Your task to perform on an android device: Is it going to rain tomorrow? Image 0: 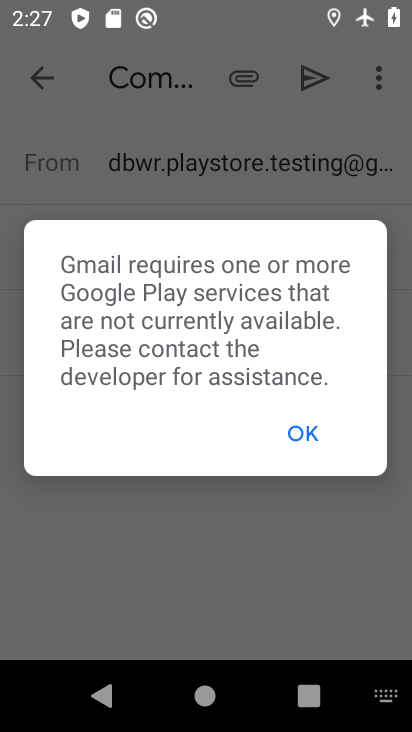
Step 0: click (316, 428)
Your task to perform on an android device: Is it going to rain tomorrow? Image 1: 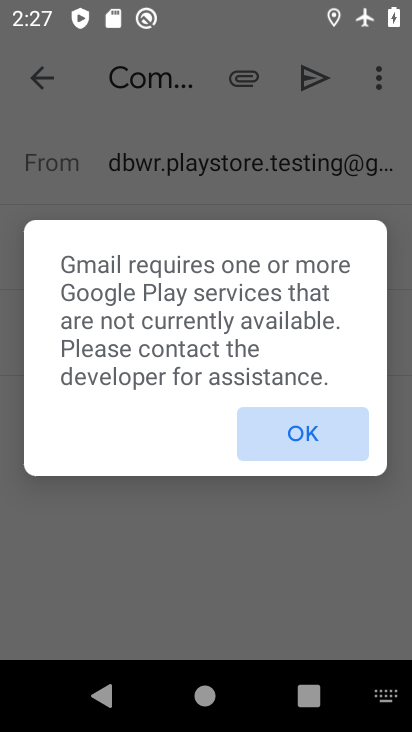
Step 1: click (316, 428)
Your task to perform on an android device: Is it going to rain tomorrow? Image 2: 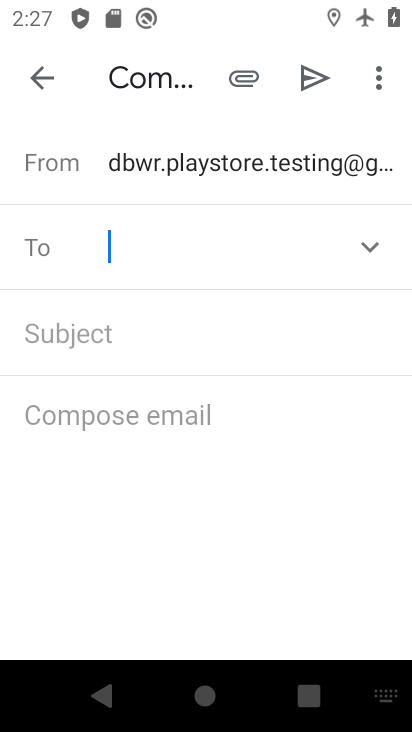
Step 2: click (316, 428)
Your task to perform on an android device: Is it going to rain tomorrow? Image 3: 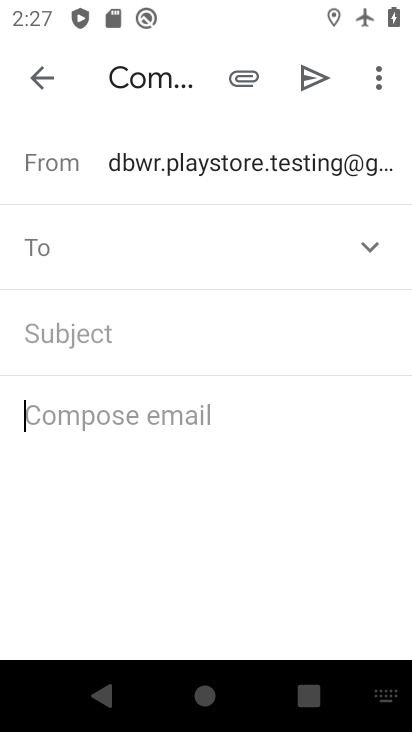
Step 3: click (47, 70)
Your task to perform on an android device: Is it going to rain tomorrow? Image 4: 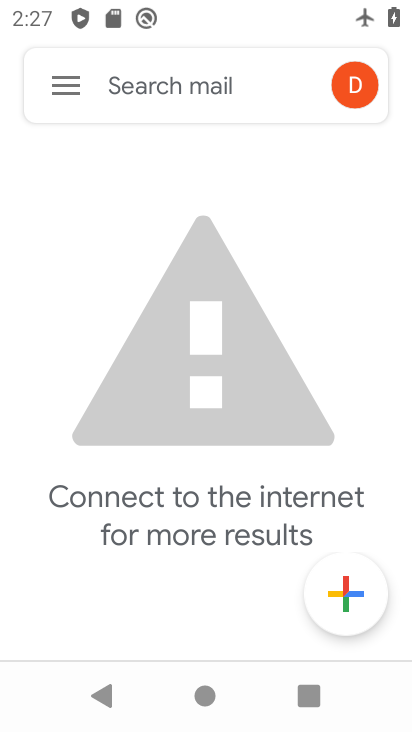
Step 4: drag from (123, 387) to (68, 15)
Your task to perform on an android device: Is it going to rain tomorrow? Image 5: 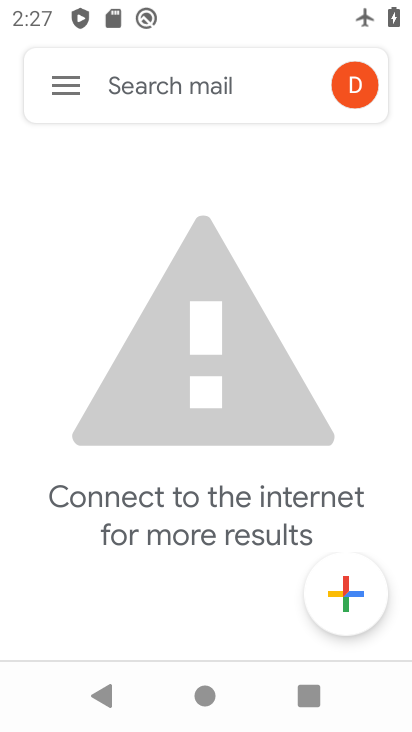
Step 5: drag from (162, 450) to (27, 10)
Your task to perform on an android device: Is it going to rain tomorrow? Image 6: 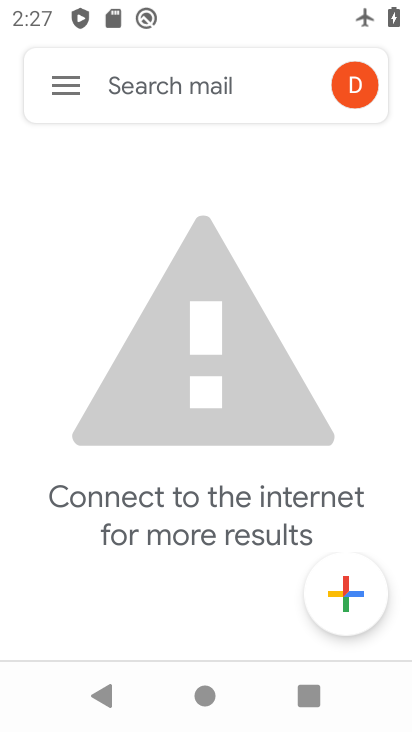
Step 6: drag from (162, 396) to (23, 12)
Your task to perform on an android device: Is it going to rain tomorrow? Image 7: 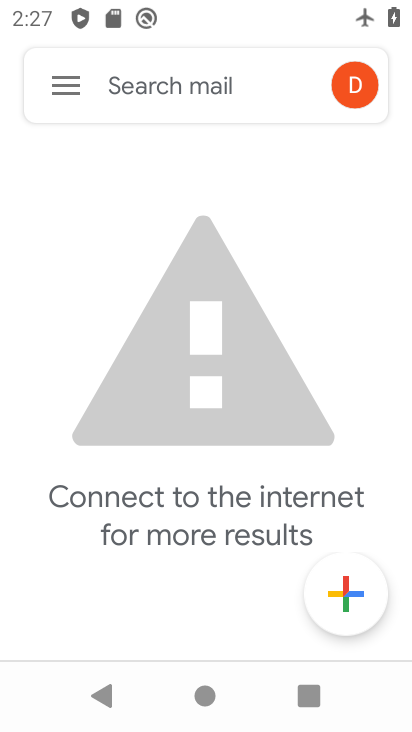
Step 7: click (63, 91)
Your task to perform on an android device: Is it going to rain tomorrow? Image 8: 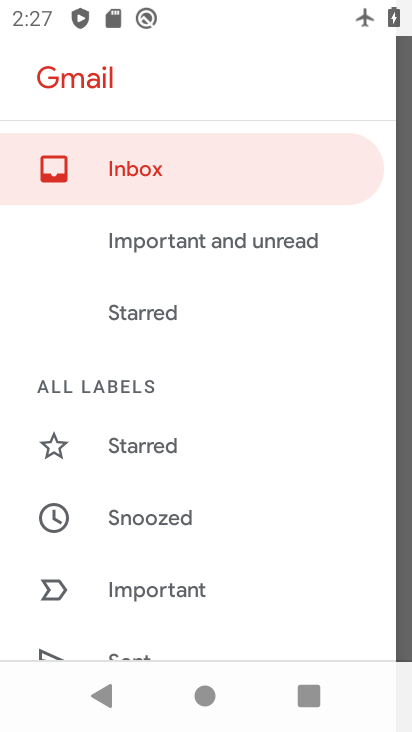
Step 8: drag from (159, 495) to (146, 286)
Your task to perform on an android device: Is it going to rain tomorrow? Image 9: 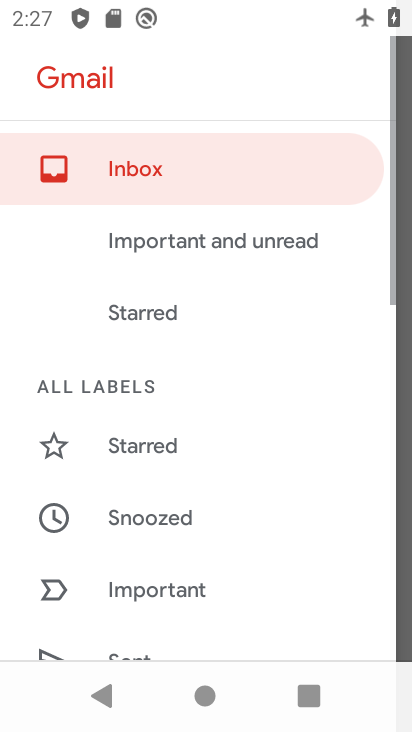
Step 9: drag from (208, 499) to (121, 187)
Your task to perform on an android device: Is it going to rain tomorrow? Image 10: 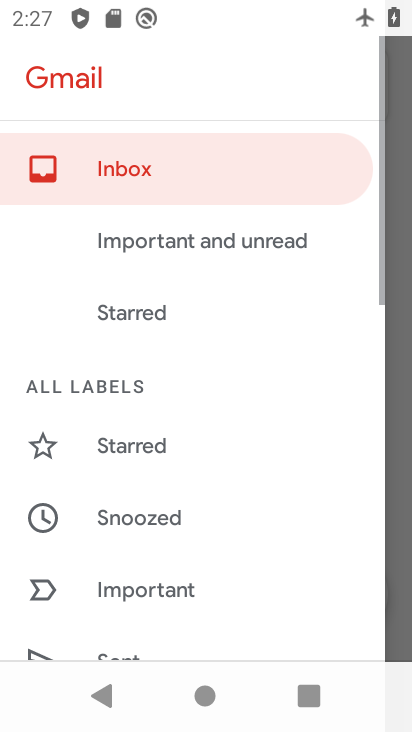
Step 10: drag from (175, 436) to (214, 13)
Your task to perform on an android device: Is it going to rain tomorrow? Image 11: 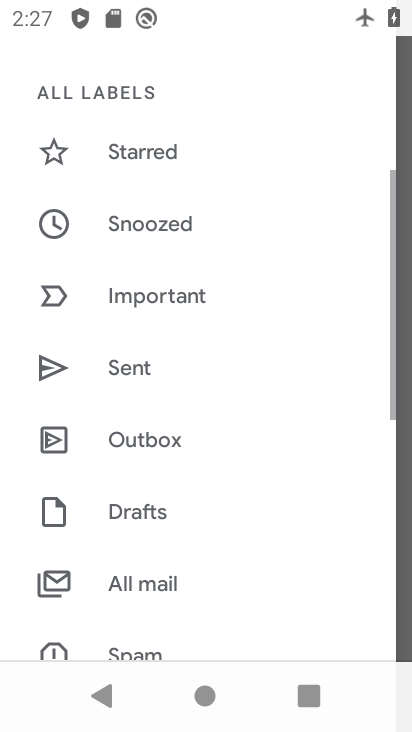
Step 11: drag from (227, 409) to (168, 121)
Your task to perform on an android device: Is it going to rain tomorrow? Image 12: 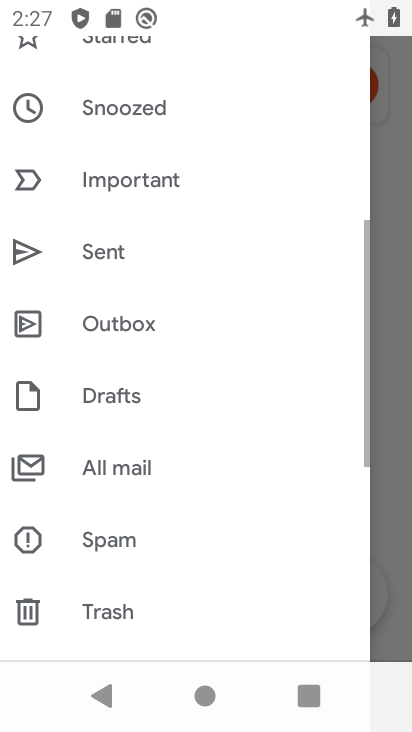
Step 12: drag from (134, 389) to (136, 161)
Your task to perform on an android device: Is it going to rain tomorrow? Image 13: 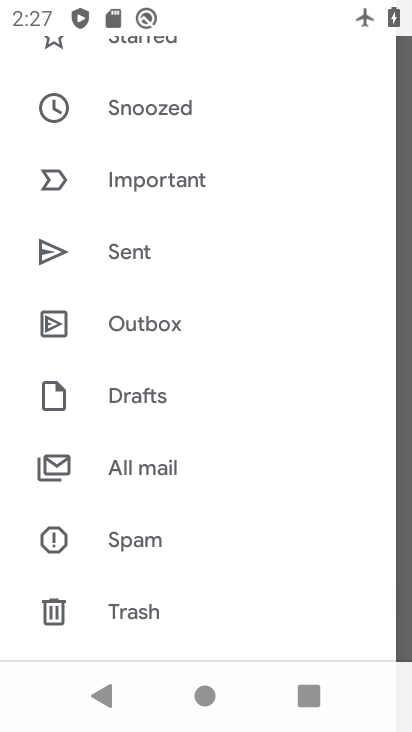
Step 13: press back button
Your task to perform on an android device: Is it going to rain tomorrow? Image 14: 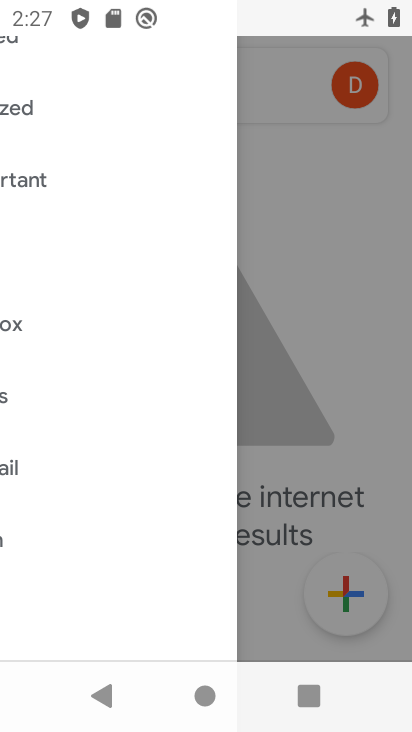
Step 14: press back button
Your task to perform on an android device: Is it going to rain tomorrow? Image 15: 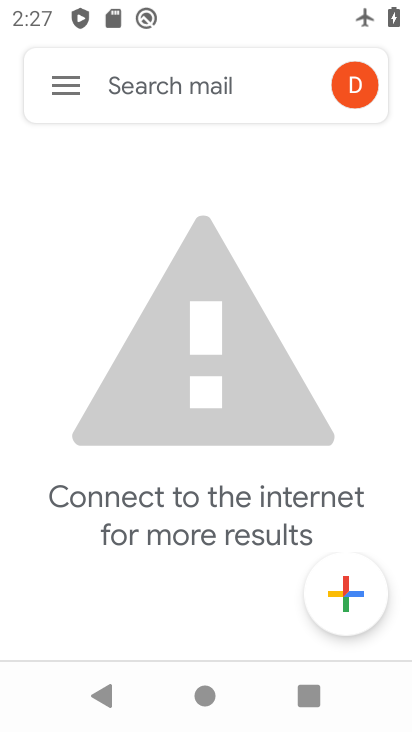
Step 15: press back button
Your task to perform on an android device: Is it going to rain tomorrow? Image 16: 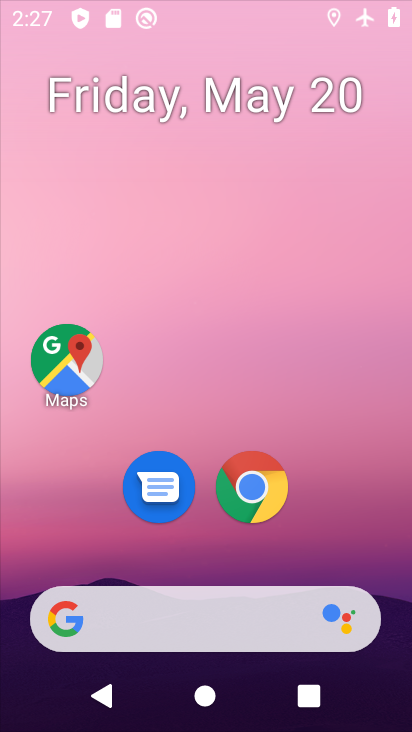
Step 16: press back button
Your task to perform on an android device: Is it going to rain tomorrow? Image 17: 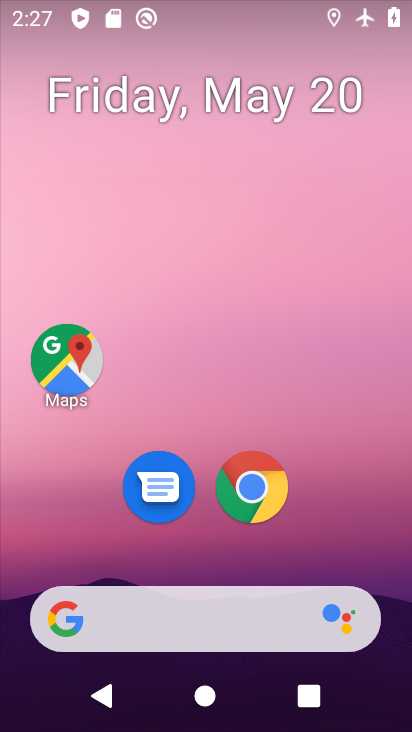
Step 17: drag from (203, 508) to (166, 29)
Your task to perform on an android device: Is it going to rain tomorrow? Image 18: 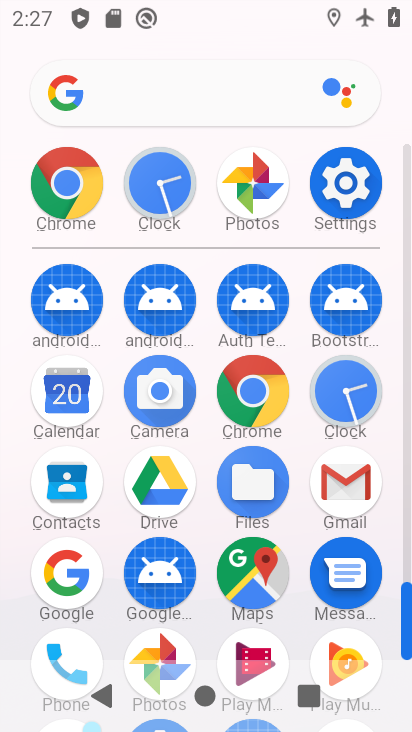
Step 18: click (344, 190)
Your task to perform on an android device: Is it going to rain tomorrow? Image 19: 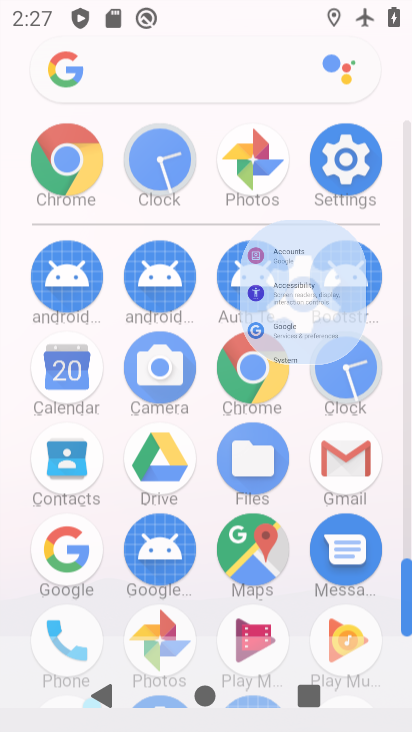
Step 19: click (341, 189)
Your task to perform on an android device: Is it going to rain tomorrow? Image 20: 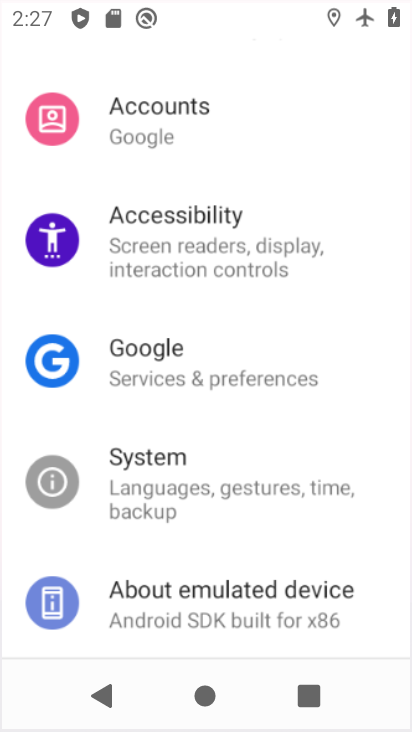
Step 20: click (333, 192)
Your task to perform on an android device: Is it going to rain tomorrow? Image 21: 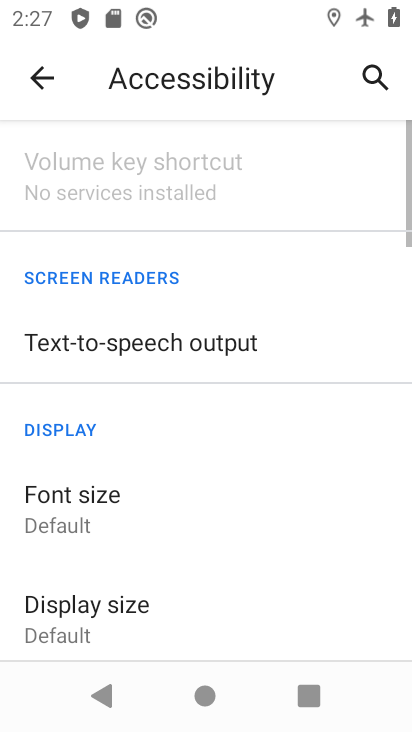
Step 21: click (36, 82)
Your task to perform on an android device: Is it going to rain tomorrow? Image 22: 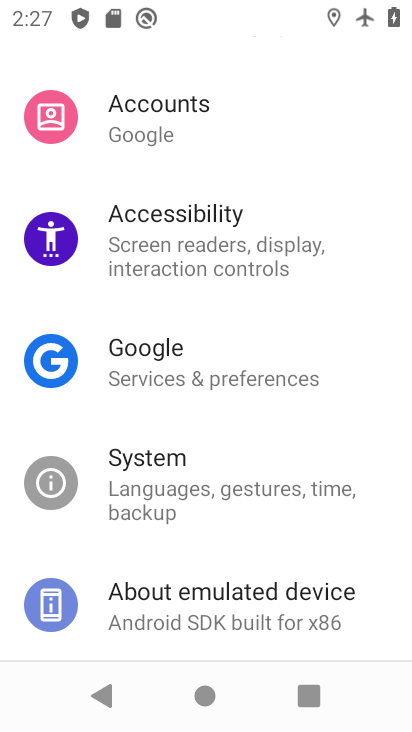
Step 22: drag from (178, 120) to (218, 543)
Your task to perform on an android device: Is it going to rain tomorrow? Image 23: 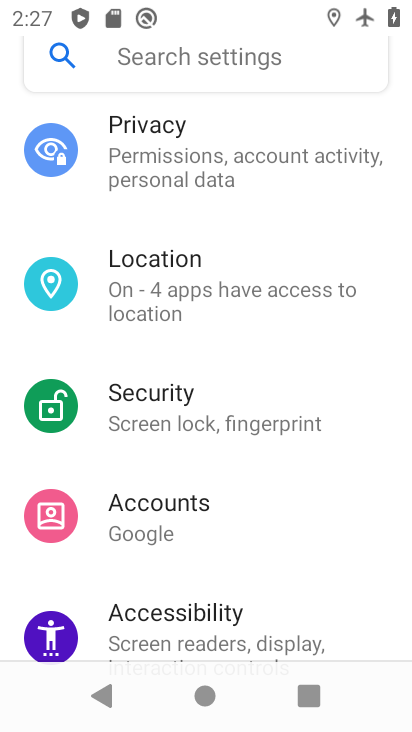
Step 23: drag from (157, 238) to (182, 554)
Your task to perform on an android device: Is it going to rain tomorrow? Image 24: 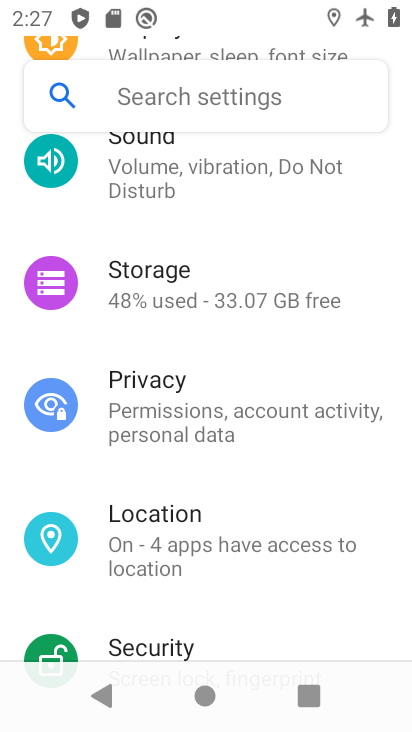
Step 24: drag from (155, 154) to (226, 542)
Your task to perform on an android device: Is it going to rain tomorrow? Image 25: 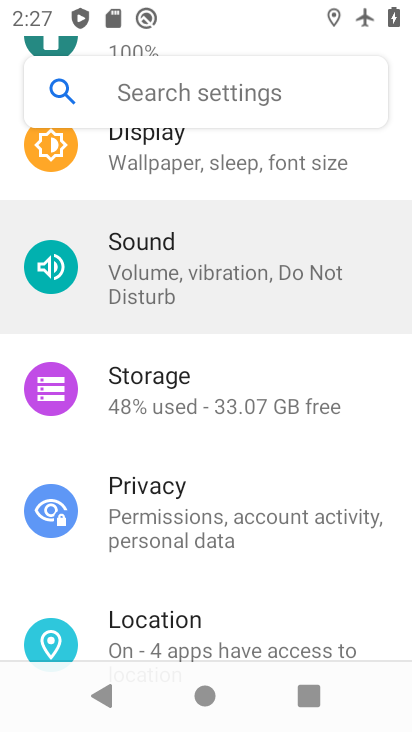
Step 25: drag from (184, 144) to (276, 690)
Your task to perform on an android device: Is it going to rain tomorrow? Image 26: 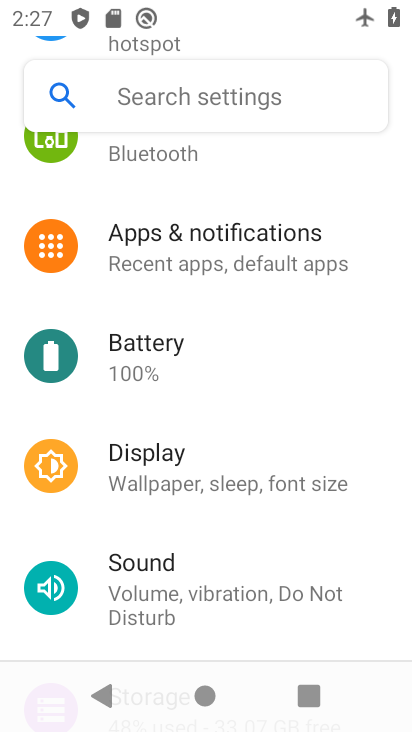
Step 26: drag from (182, 148) to (243, 577)
Your task to perform on an android device: Is it going to rain tomorrow? Image 27: 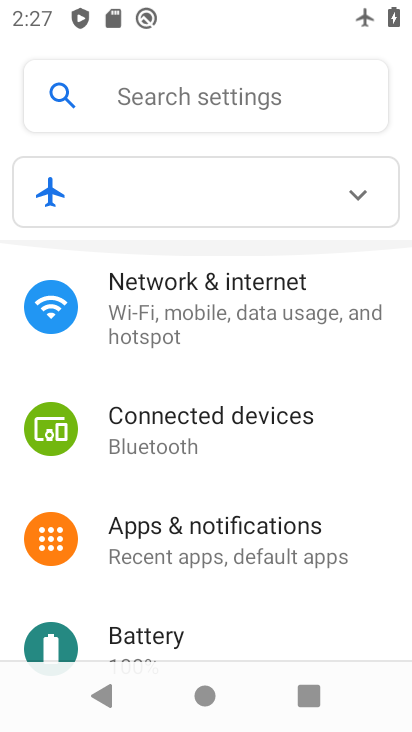
Step 27: drag from (177, 171) to (264, 607)
Your task to perform on an android device: Is it going to rain tomorrow? Image 28: 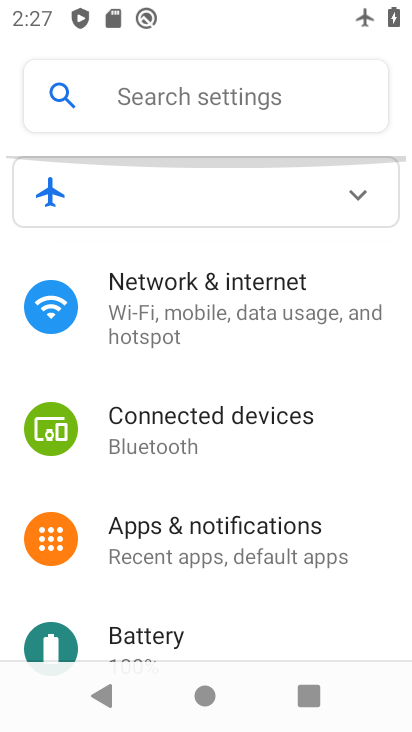
Step 28: drag from (170, 177) to (262, 517)
Your task to perform on an android device: Is it going to rain tomorrow? Image 29: 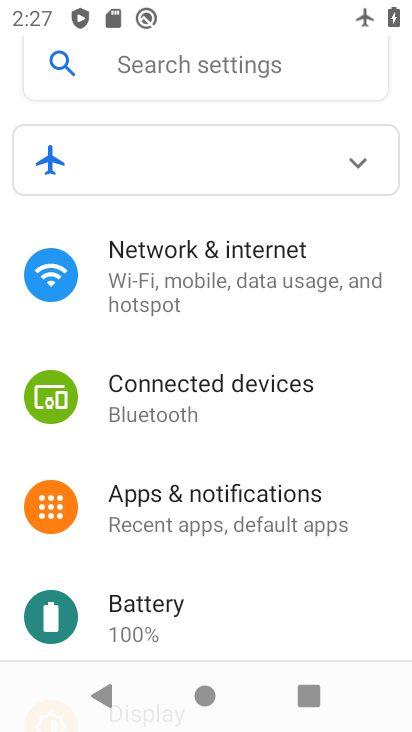
Step 29: click (197, 268)
Your task to perform on an android device: Is it going to rain tomorrow? Image 30: 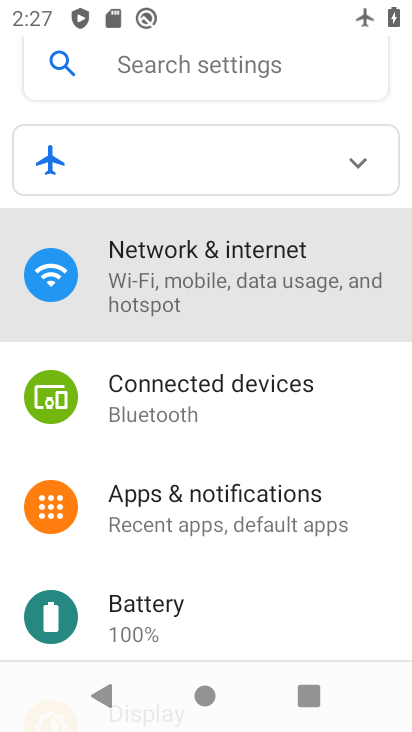
Step 30: click (197, 267)
Your task to perform on an android device: Is it going to rain tomorrow? Image 31: 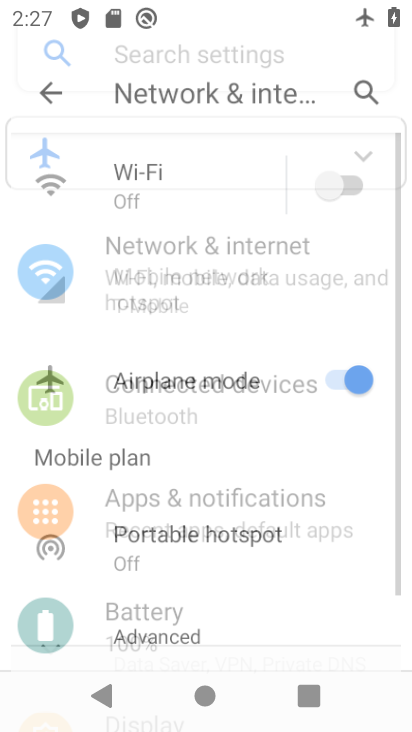
Step 31: click (197, 266)
Your task to perform on an android device: Is it going to rain tomorrow? Image 32: 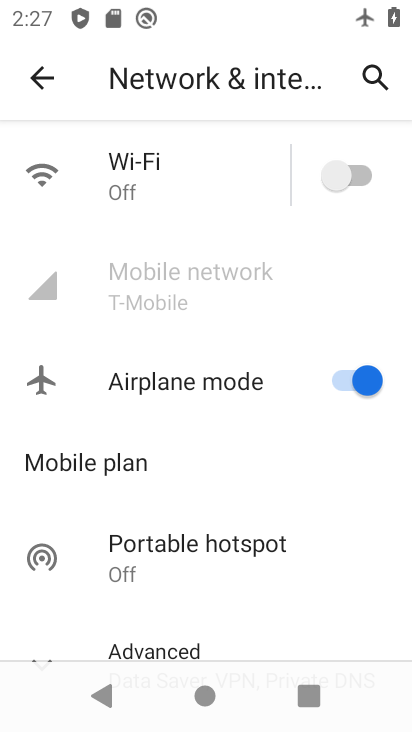
Step 32: click (334, 169)
Your task to perform on an android device: Is it going to rain tomorrow? Image 33: 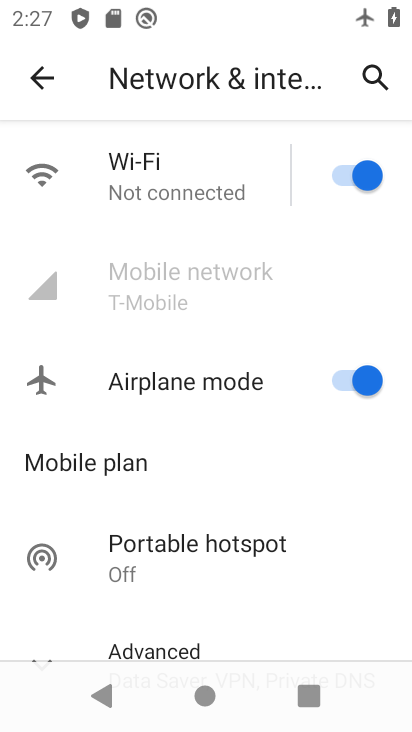
Step 33: click (42, 69)
Your task to perform on an android device: Is it going to rain tomorrow? Image 34: 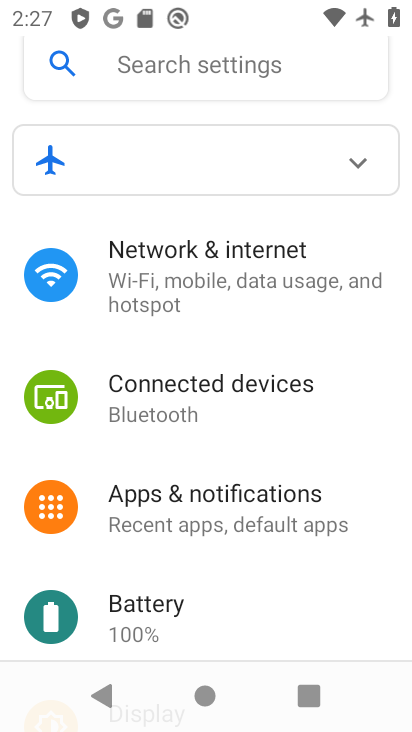
Step 34: click (56, 158)
Your task to perform on an android device: Is it going to rain tomorrow? Image 35: 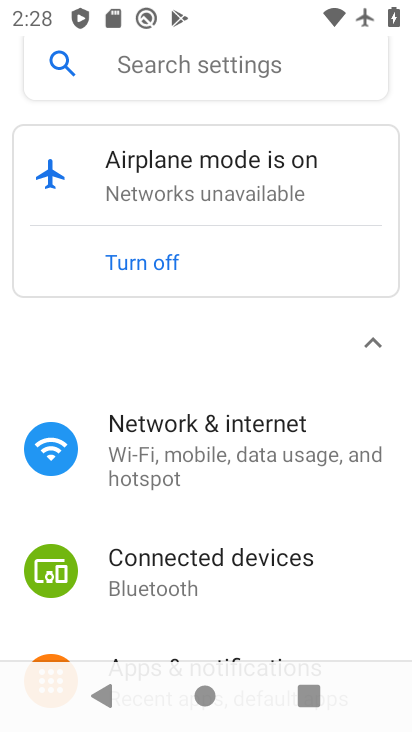
Step 35: click (184, 437)
Your task to perform on an android device: Is it going to rain tomorrow? Image 36: 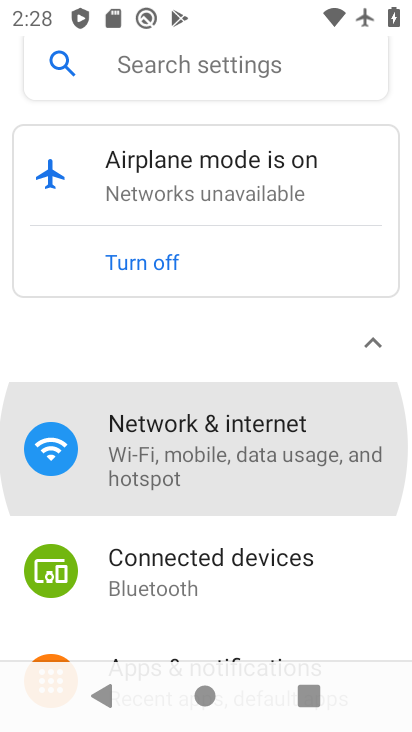
Step 36: click (184, 437)
Your task to perform on an android device: Is it going to rain tomorrow? Image 37: 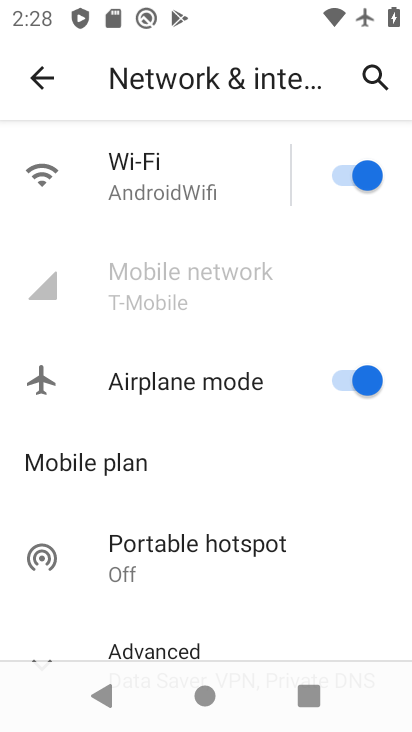
Step 37: click (367, 385)
Your task to perform on an android device: Is it going to rain tomorrow? Image 38: 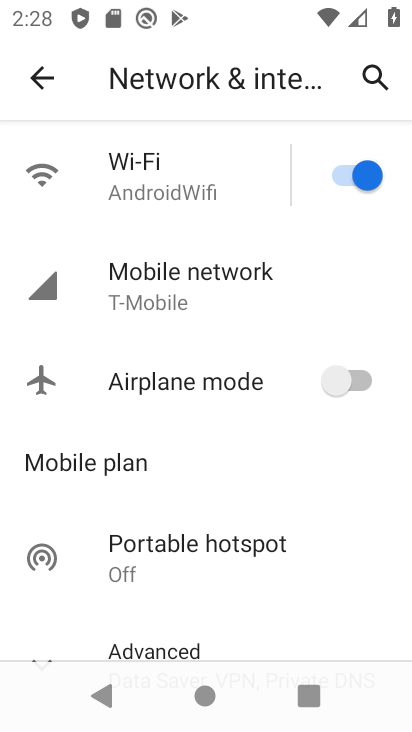
Step 38: press back button
Your task to perform on an android device: Is it going to rain tomorrow? Image 39: 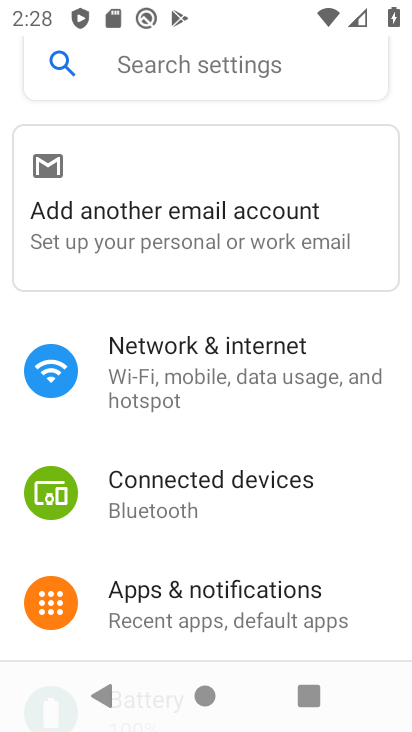
Step 39: press home button
Your task to perform on an android device: Is it going to rain tomorrow? Image 40: 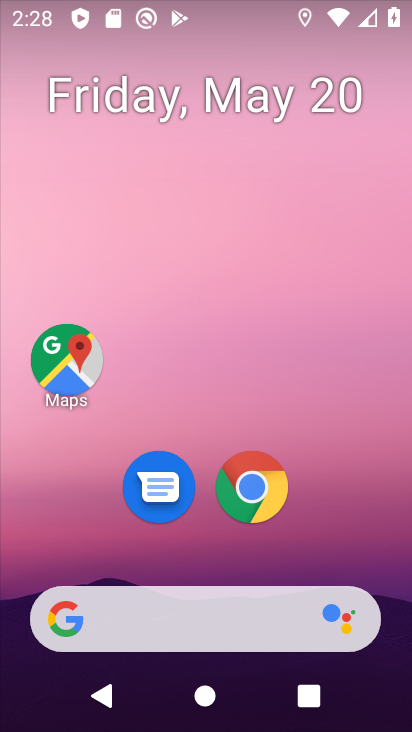
Step 40: drag from (105, 280) to (390, 450)
Your task to perform on an android device: Is it going to rain tomorrow? Image 41: 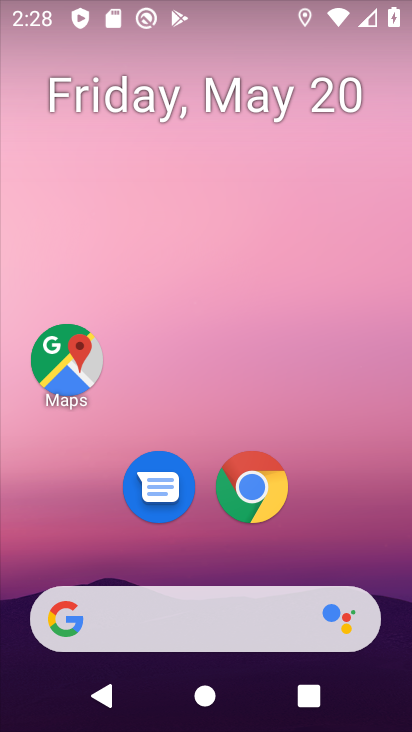
Step 41: drag from (4, 202) to (322, 629)
Your task to perform on an android device: Is it going to rain tomorrow? Image 42: 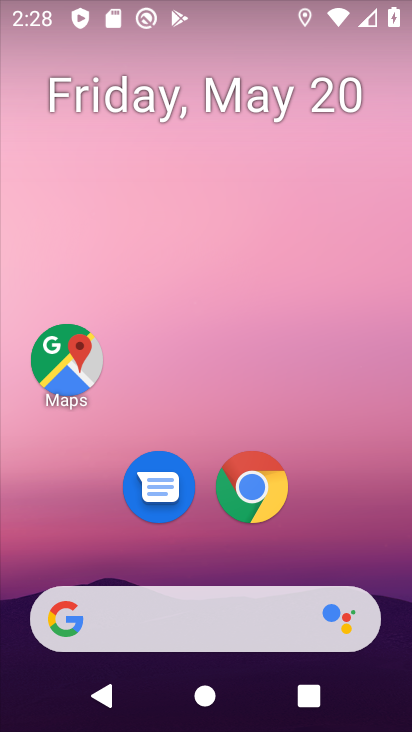
Step 42: drag from (8, 209) to (255, 563)
Your task to perform on an android device: Is it going to rain tomorrow? Image 43: 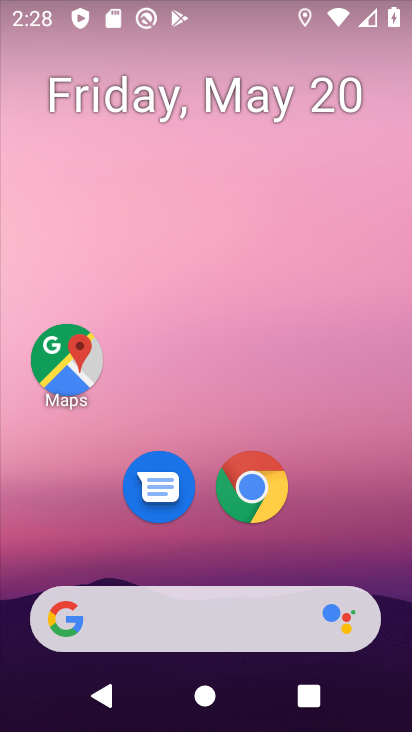
Step 43: drag from (0, 218) to (369, 598)
Your task to perform on an android device: Is it going to rain tomorrow? Image 44: 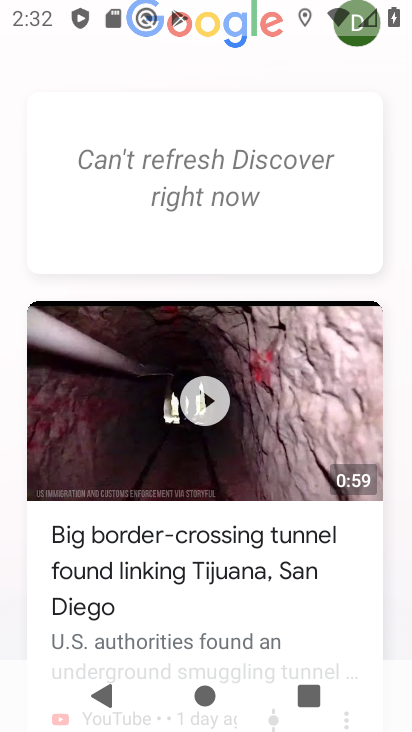
Step 44: drag from (1, 252) to (408, 514)
Your task to perform on an android device: Is it going to rain tomorrow? Image 45: 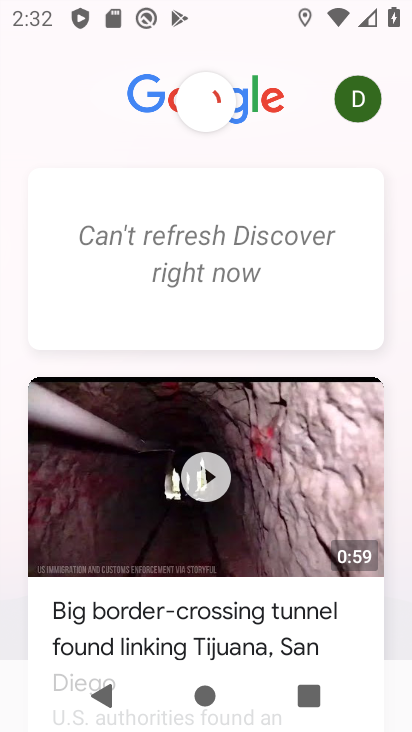
Step 45: click (176, 287)
Your task to perform on an android device: Is it going to rain tomorrow? Image 46: 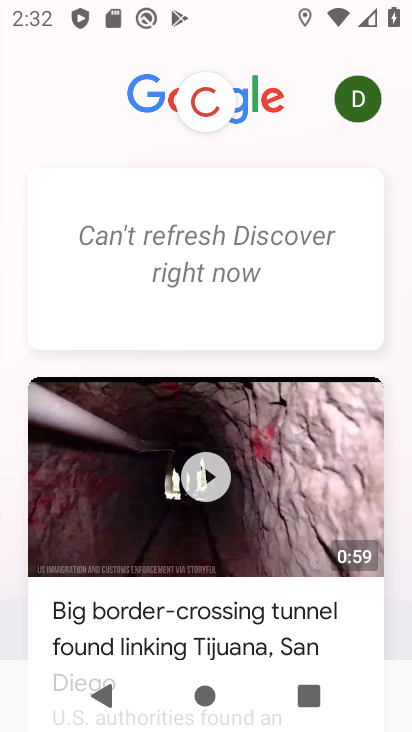
Step 46: click (176, 287)
Your task to perform on an android device: Is it going to rain tomorrow? Image 47: 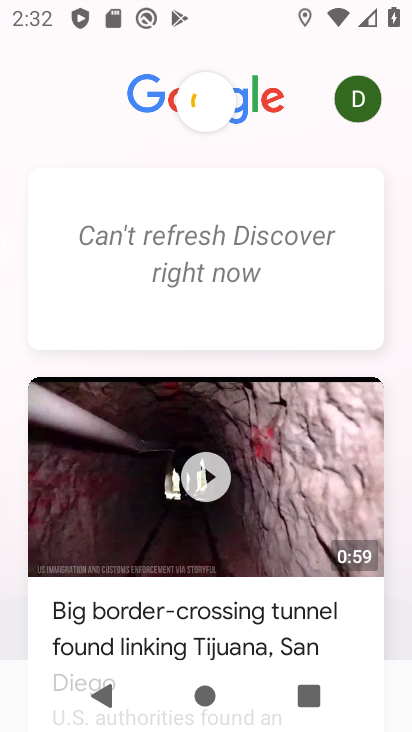
Step 47: click (196, 279)
Your task to perform on an android device: Is it going to rain tomorrow? Image 48: 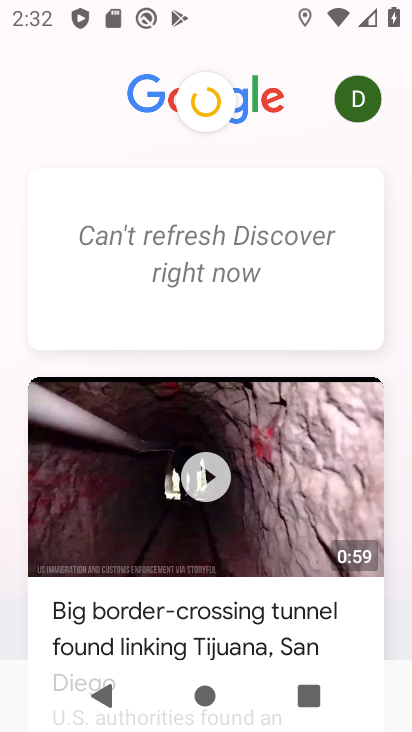
Step 48: click (219, 259)
Your task to perform on an android device: Is it going to rain tomorrow? Image 49: 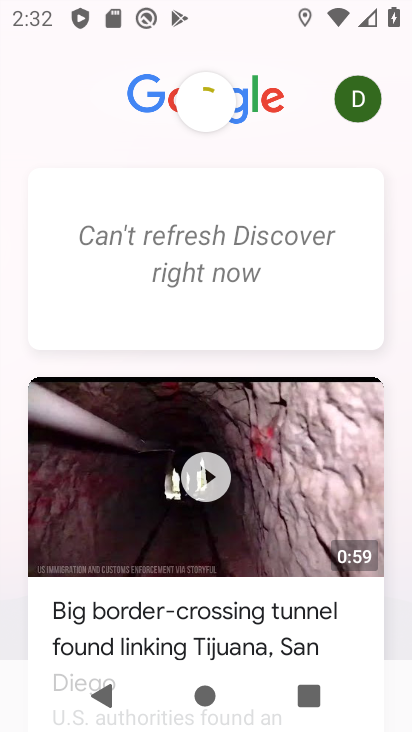
Step 49: drag from (228, 278) to (273, 328)
Your task to perform on an android device: Is it going to rain tomorrow? Image 50: 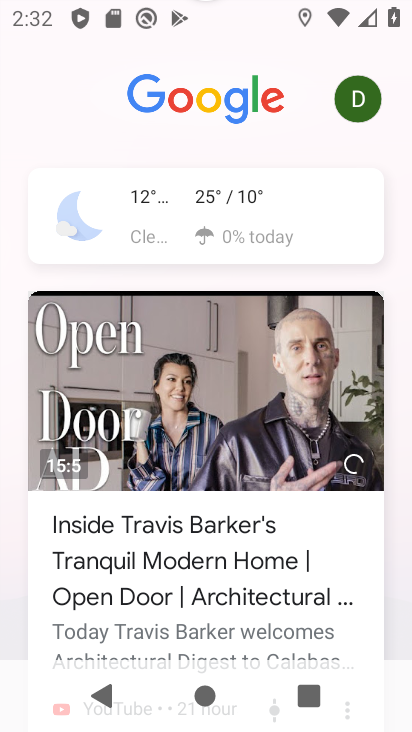
Step 50: drag from (193, 204) to (219, 246)
Your task to perform on an android device: Is it going to rain tomorrow? Image 51: 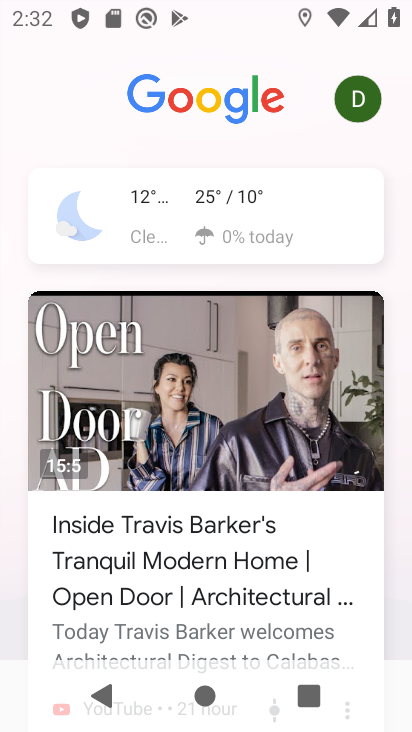
Step 51: click (224, 247)
Your task to perform on an android device: Is it going to rain tomorrow? Image 52: 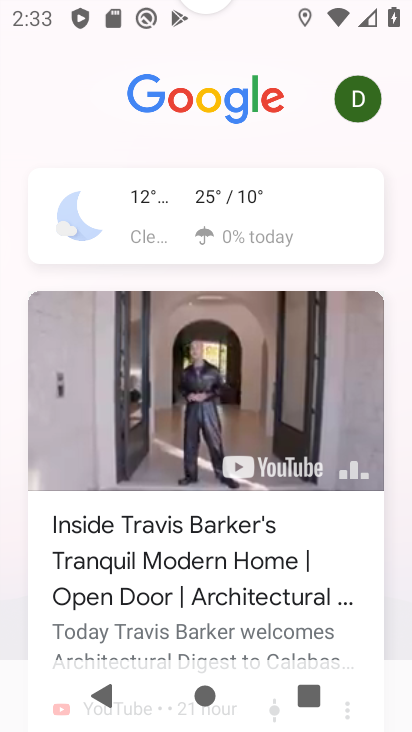
Step 52: click (212, 238)
Your task to perform on an android device: Is it going to rain tomorrow? Image 53: 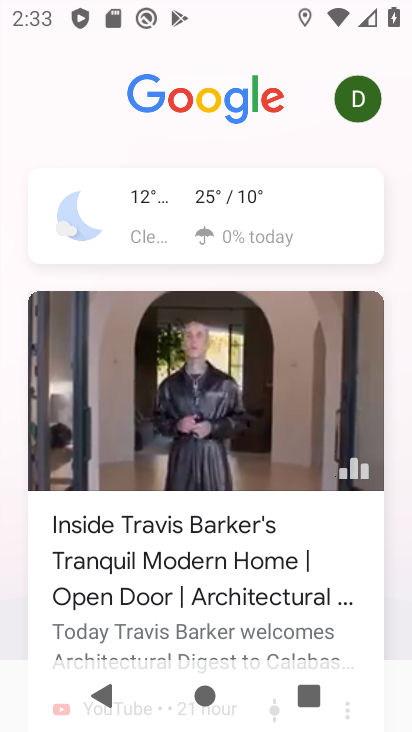
Step 53: click (206, 230)
Your task to perform on an android device: Is it going to rain tomorrow? Image 54: 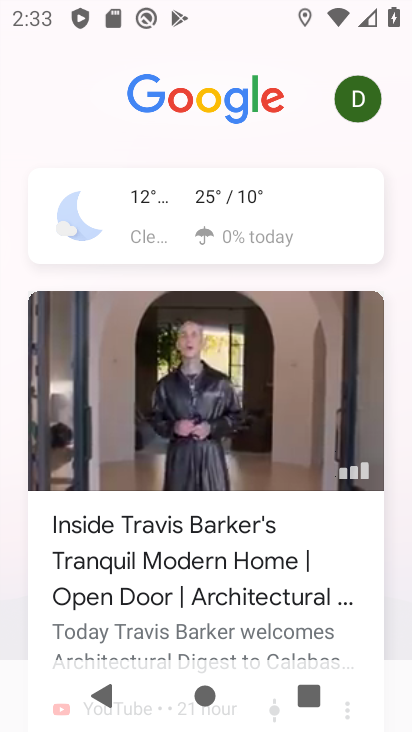
Step 54: click (193, 237)
Your task to perform on an android device: Is it going to rain tomorrow? Image 55: 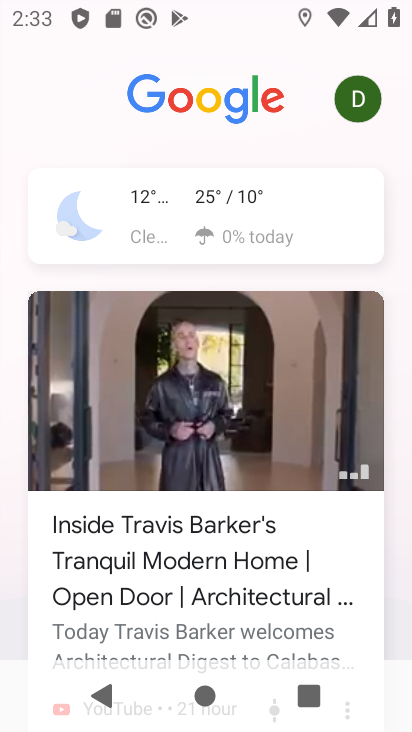
Step 55: click (190, 239)
Your task to perform on an android device: Is it going to rain tomorrow? Image 56: 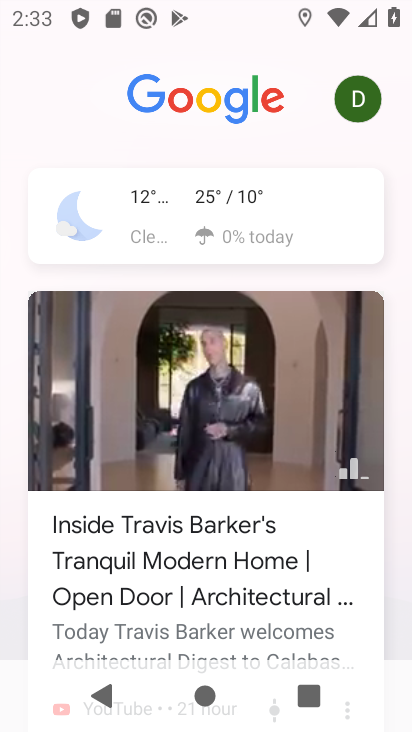
Step 56: drag from (202, 230) to (114, 6)
Your task to perform on an android device: Is it going to rain tomorrow? Image 57: 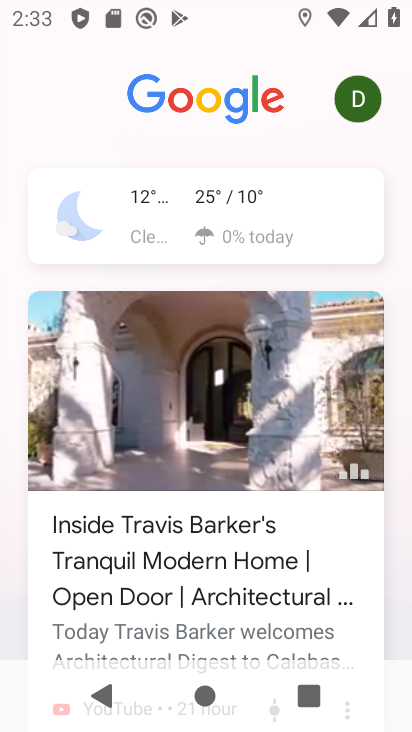
Step 57: drag from (196, 558) to (166, 6)
Your task to perform on an android device: Is it going to rain tomorrow? Image 58: 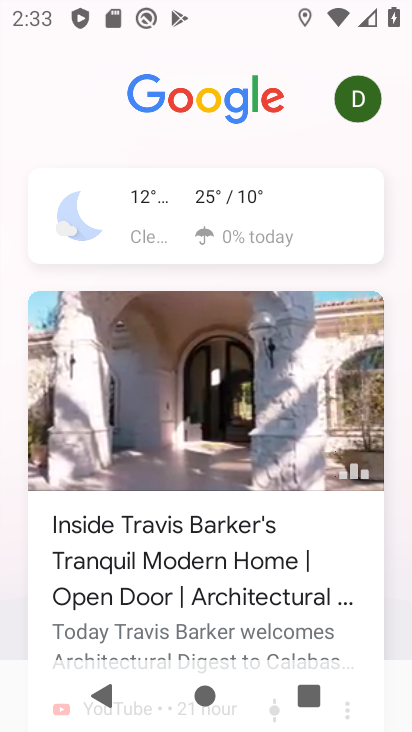
Step 58: drag from (198, 447) to (119, 12)
Your task to perform on an android device: Is it going to rain tomorrow? Image 59: 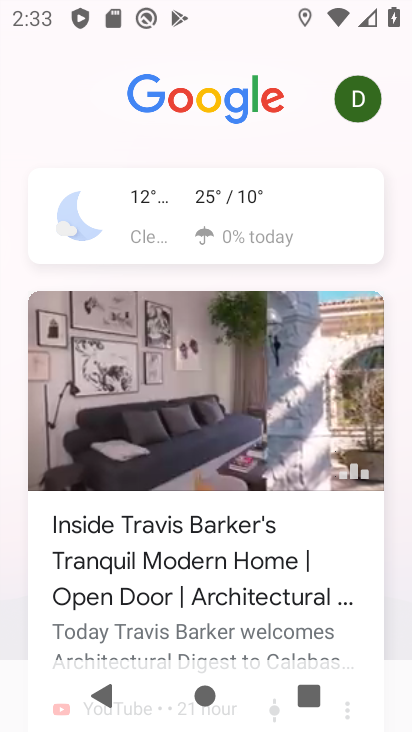
Step 59: drag from (133, 416) to (142, 133)
Your task to perform on an android device: Is it going to rain tomorrow? Image 60: 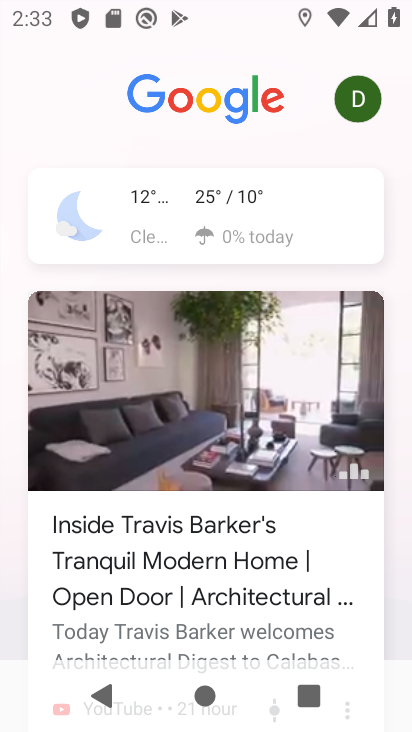
Step 60: drag from (197, 424) to (166, 115)
Your task to perform on an android device: Is it going to rain tomorrow? Image 61: 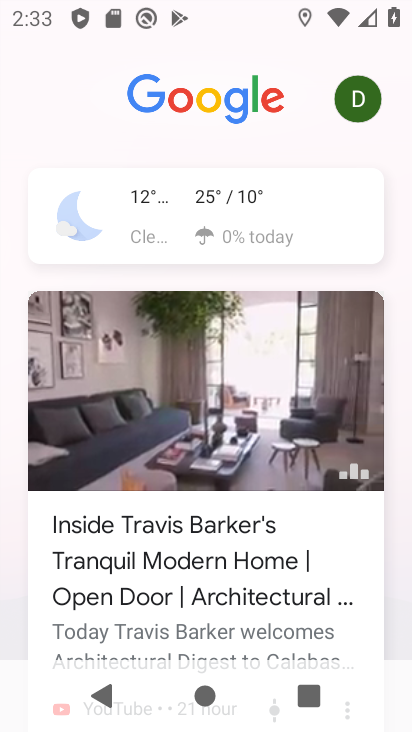
Step 61: drag from (180, 378) to (185, 108)
Your task to perform on an android device: Is it going to rain tomorrow? Image 62: 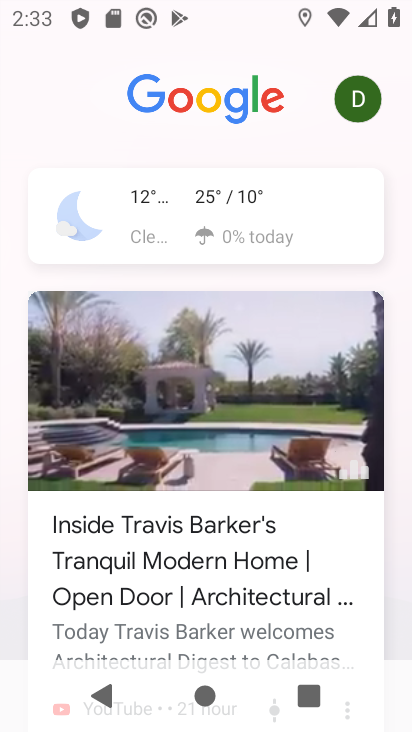
Step 62: drag from (186, 298) to (149, 89)
Your task to perform on an android device: Is it going to rain tomorrow? Image 63: 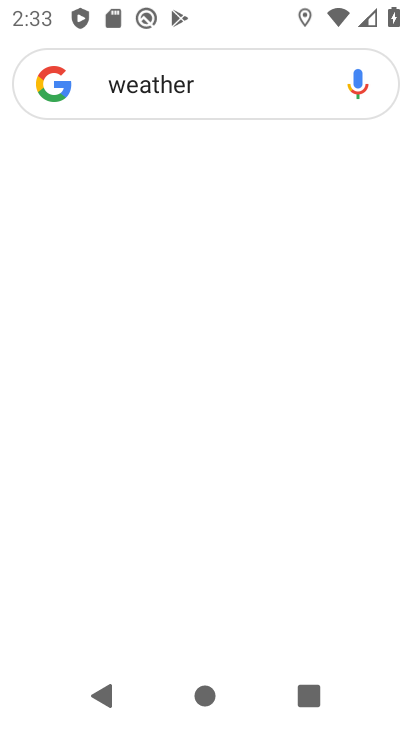
Step 63: drag from (155, 314) to (136, 132)
Your task to perform on an android device: Is it going to rain tomorrow? Image 64: 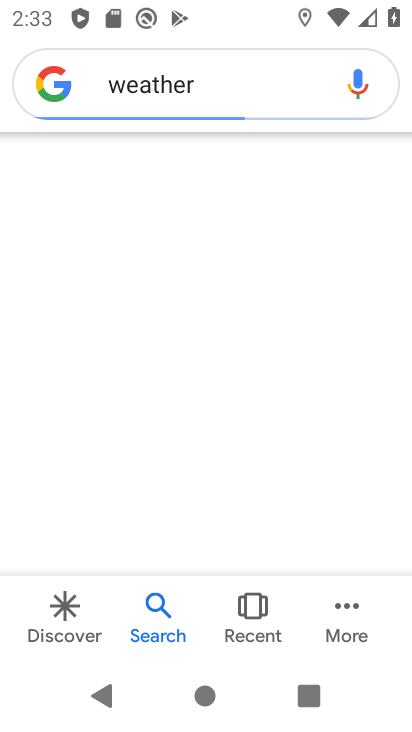
Step 64: drag from (162, 435) to (146, 87)
Your task to perform on an android device: Is it going to rain tomorrow? Image 65: 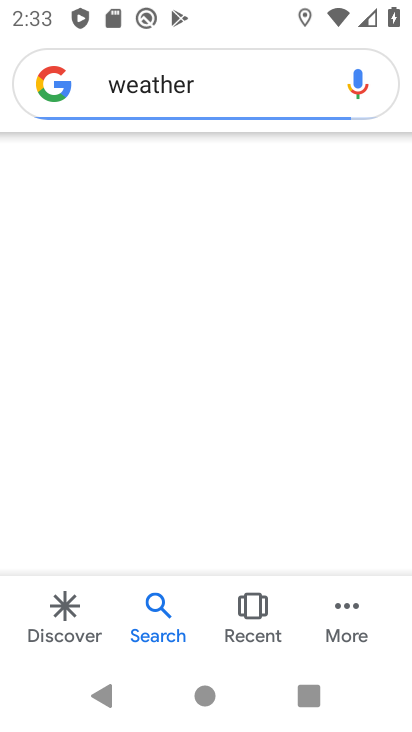
Step 65: press back button
Your task to perform on an android device: Is it going to rain tomorrow? Image 66: 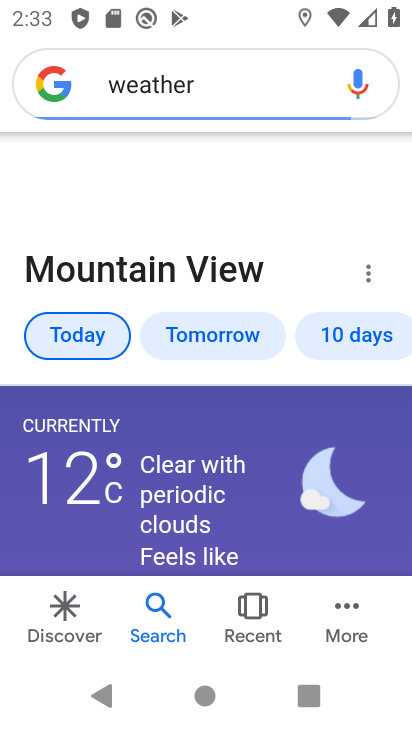
Step 66: press back button
Your task to perform on an android device: Is it going to rain tomorrow? Image 67: 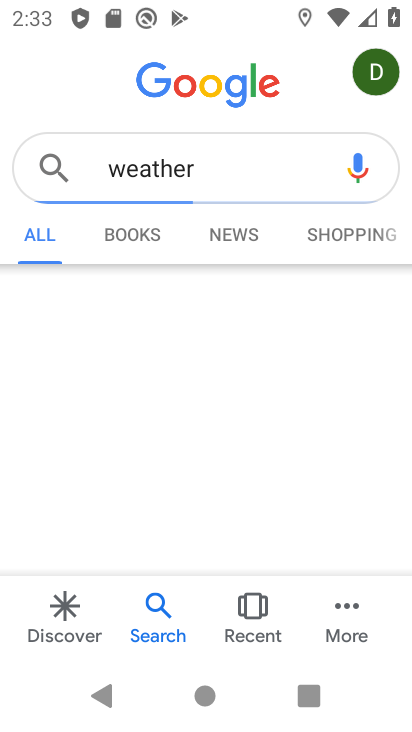
Step 67: press back button
Your task to perform on an android device: Is it going to rain tomorrow? Image 68: 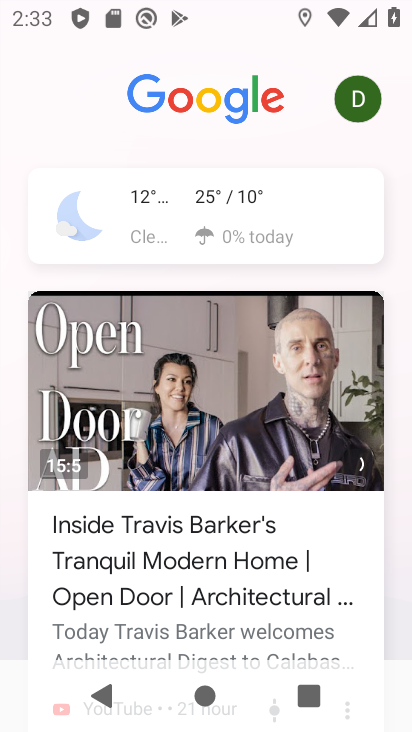
Step 68: click (196, 218)
Your task to perform on an android device: Is it going to rain tomorrow? Image 69: 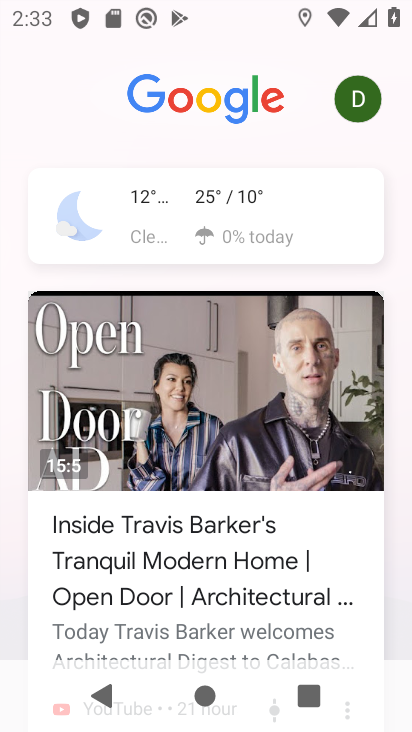
Step 69: click (197, 216)
Your task to perform on an android device: Is it going to rain tomorrow? Image 70: 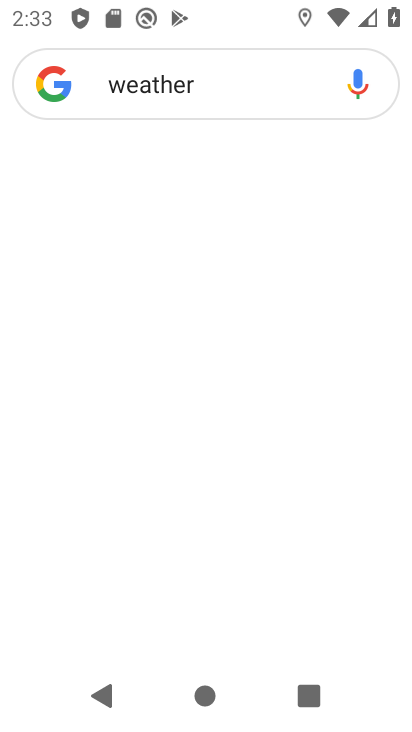
Step 70: drag from (211, 228) to (229, 190)
Your task to perform on an android device: Is it going to rain tomorrow? Image 71: 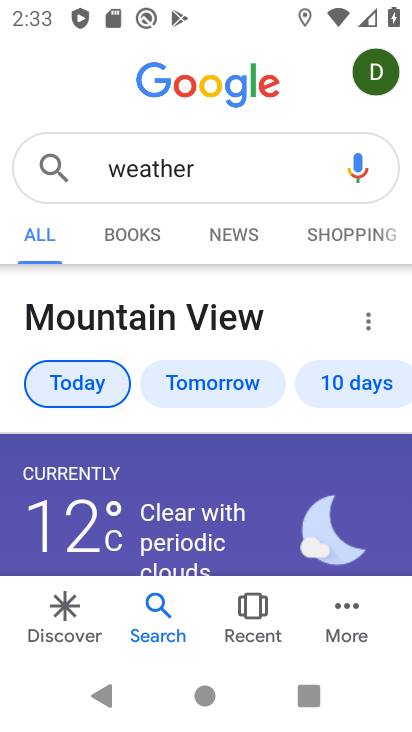
Step 71: click (194, 159)
Your task to perform on an android device: Is it going to rain tomorrow? Image 72: 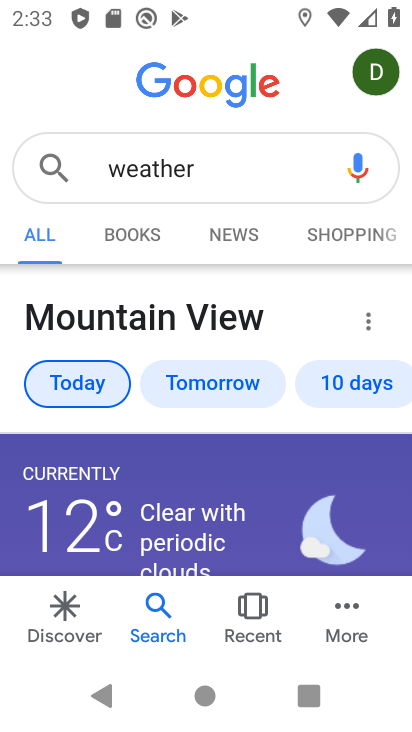
Step 72: click (215, 156)
Your task to perform on an android device: Is it going to rain tomorrow? Image 73: 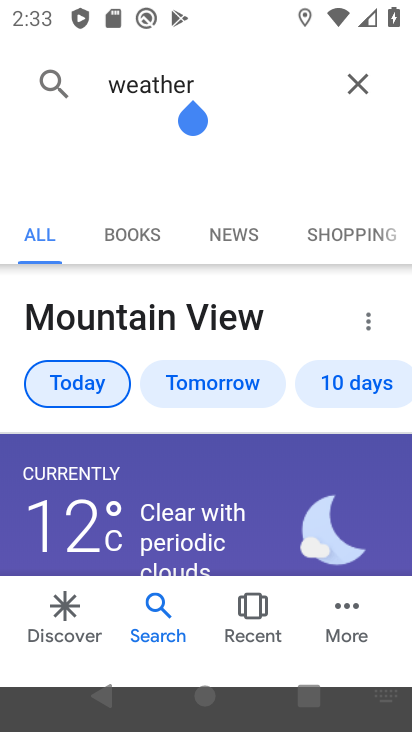
Step 73: click (222, 171)
Your task to perform on an android device: Is it going to rain tomorrow? Image 74: 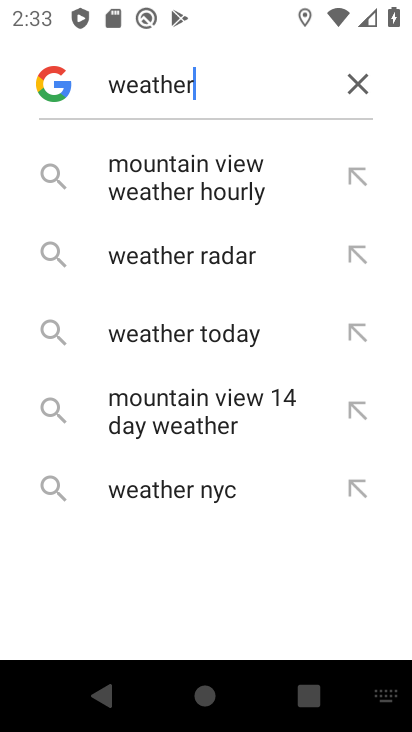
Step 74: press back button
Your task to perform on an android device: Is it going to rain tomorrow? Image 75: 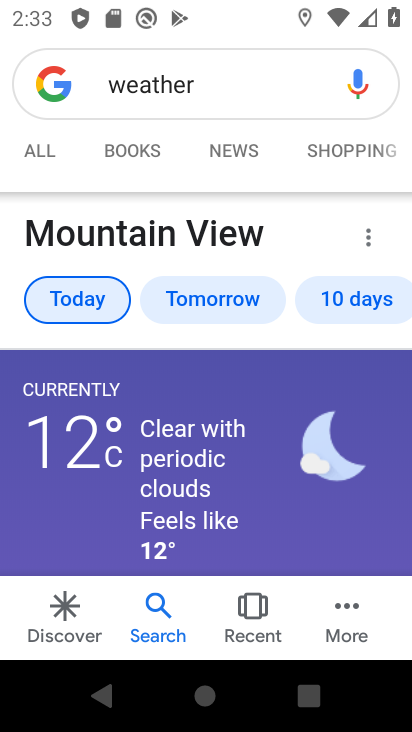
Step 75: press back button
Your task to perform on an android device: Is it going to rain tomorrow? Image 76: 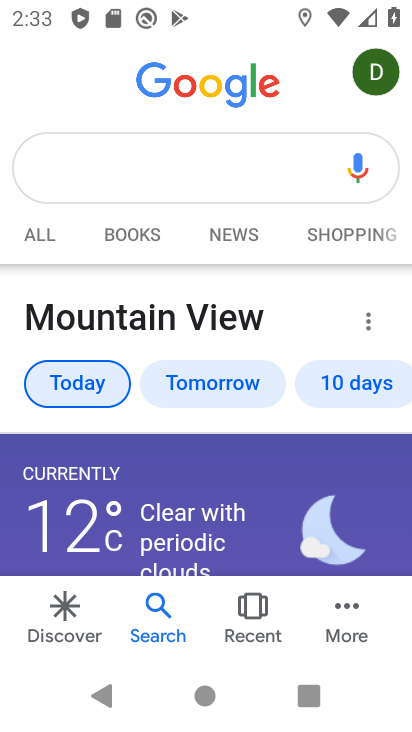
Step 76: press back button
Your task to perform on an android device: Is it going to rain tomorrow? Image 77: 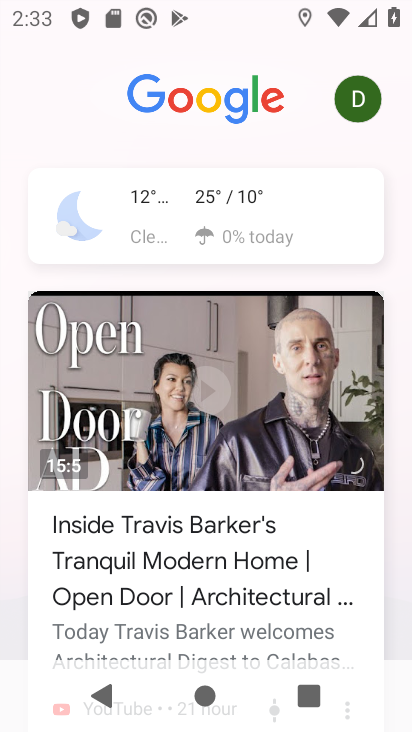
Step 77: press back button
Your task to perform on an android device: Is it going to rain tomorrow? Image 78: 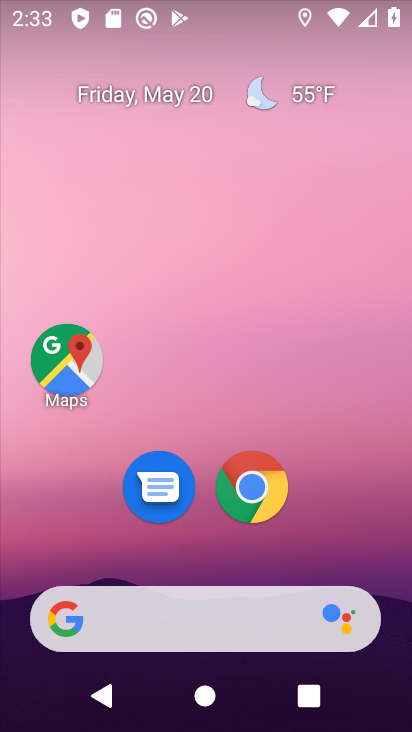
Step 78: drag from (66, 299) to (411, 456)
Your task to perform on an android device: Is it going to rain tomorrow? Image 79: 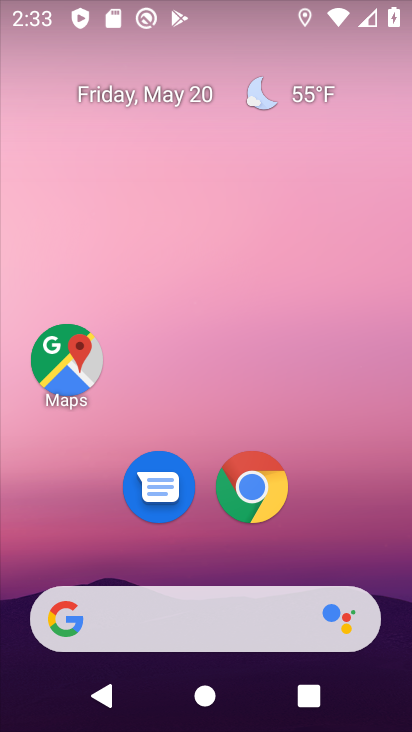
Step 79: drag from (8, 200) to (336, 496)
Your task to perform on an android device: Is it going to rain tomorrow? Image 80: 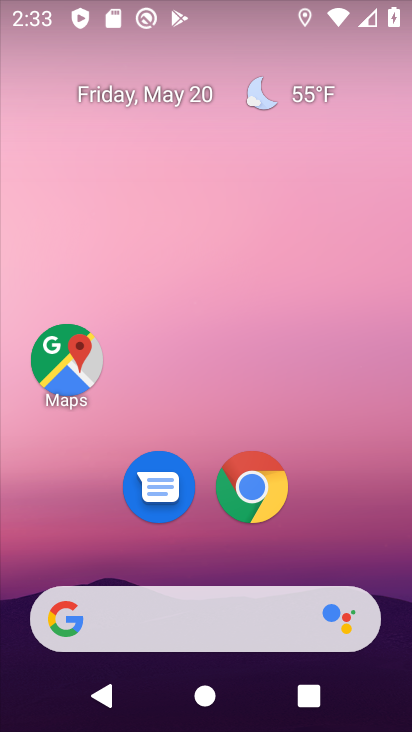
Step 80: drag from (18, 205) to (264, 373)
Your task to perform on an android device: Is it going to rain tomorrow? Image 81: 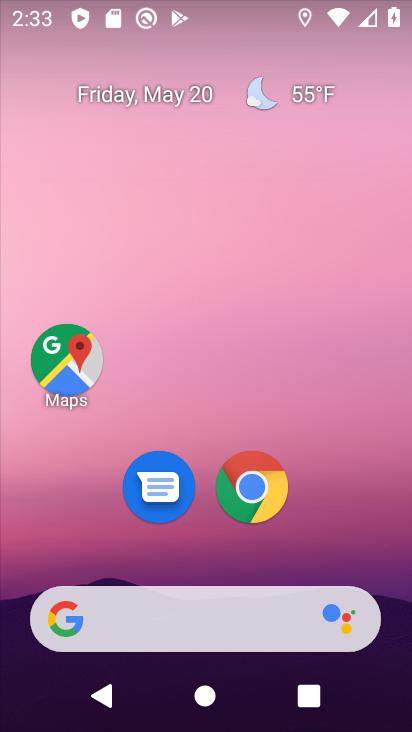
Step 81: drag from (175, 315) to (253, 397)
Your task to perform on an android device: Is it going to rain tomorrow? Image 82: 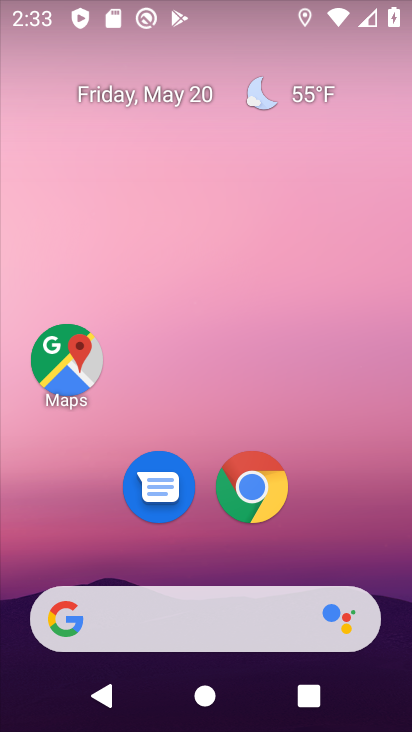
Step 82: click (263, 344)
Your task to perform on an android device: Is it going to rain tomorrow? Image 83: 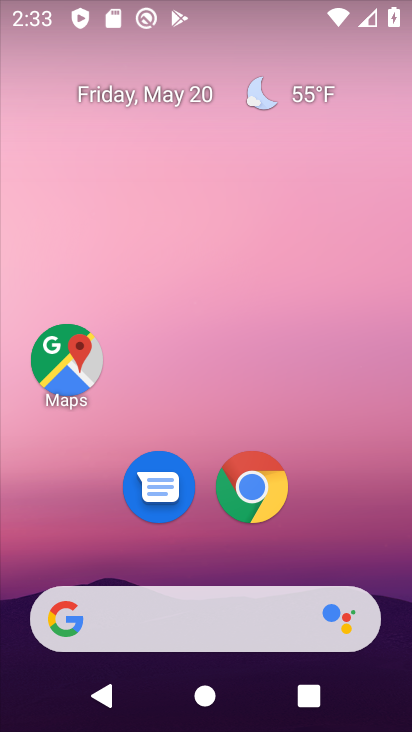
Step 83: task complete